Your task to perform on an android device: turn notification dots on Image 0: 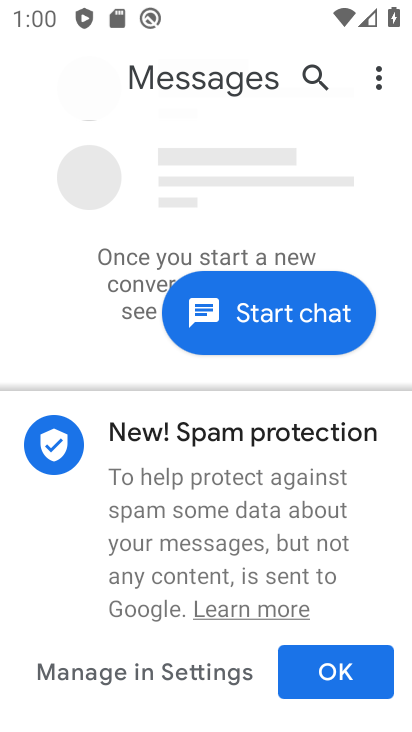
Step 0: press home button
Your task to perform on an android device: turn notification dots on Image 1: 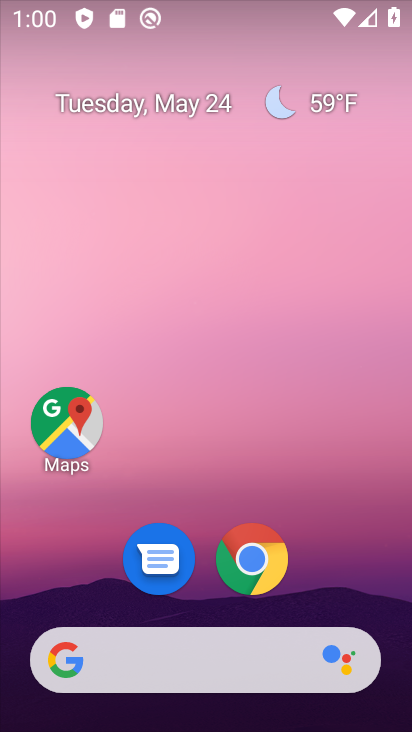
Step 1: drag from (391, 671) to (258, 67)
Your task to perform on an android device: turn notification dots on Image 2: 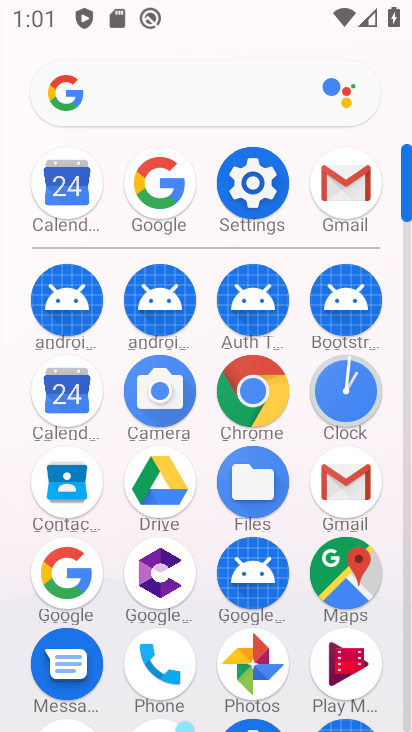
Step 2: click (243, 170)
Your task to perform on an android device: turn notification dots on Image 3: 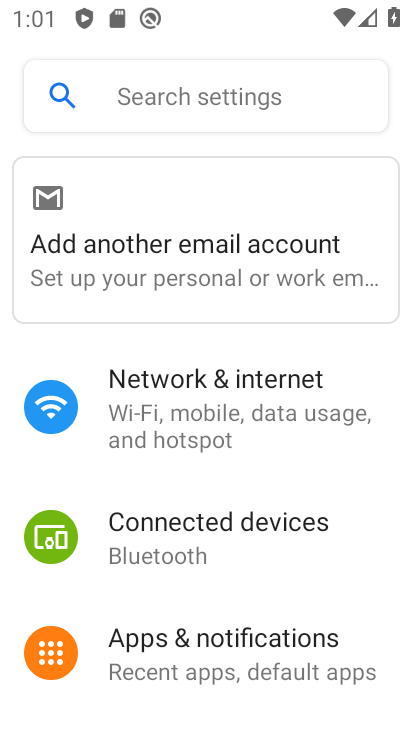
Step 3: drag from (269, 644) to (265, 256)
Your task to perform on an android device: turn notification dots on Image 4: 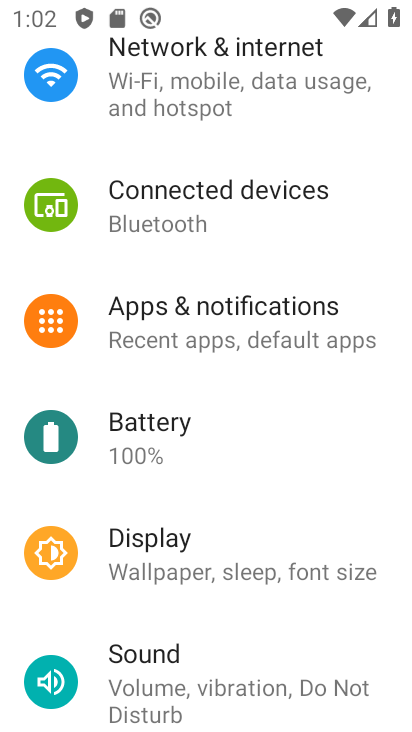
Step 4: click (178, 353)
Your task to perform on an android device: turn notification dots on Image 5: 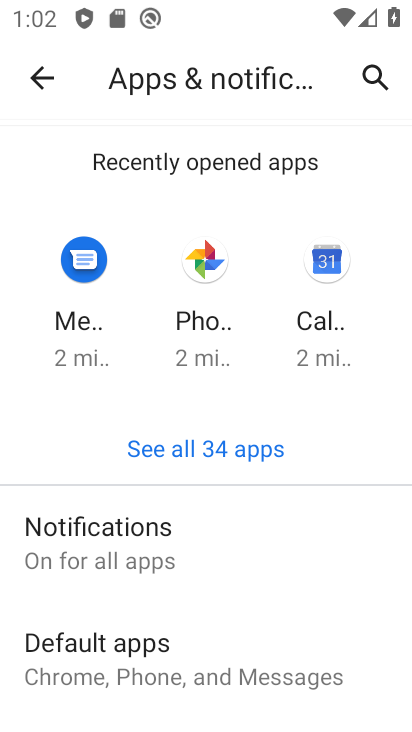
Step 5: click (186, 554)
Your task to perform on an android device: turn notification dots on Image 6: 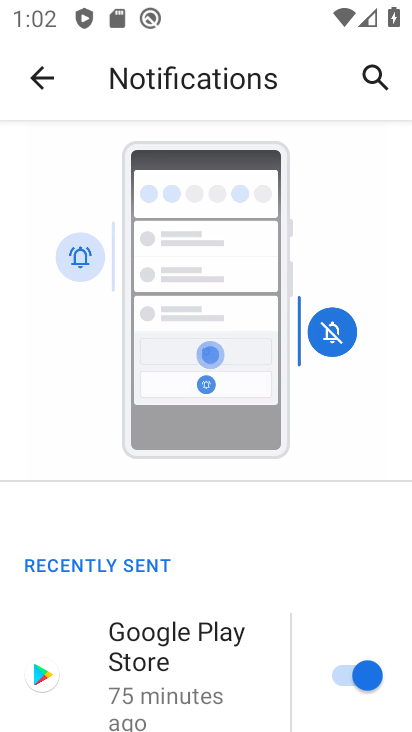
Step 6: drag from (173, 695) to (252, 42)
Your task to perform on an android device: turn notification dots on Image 7: 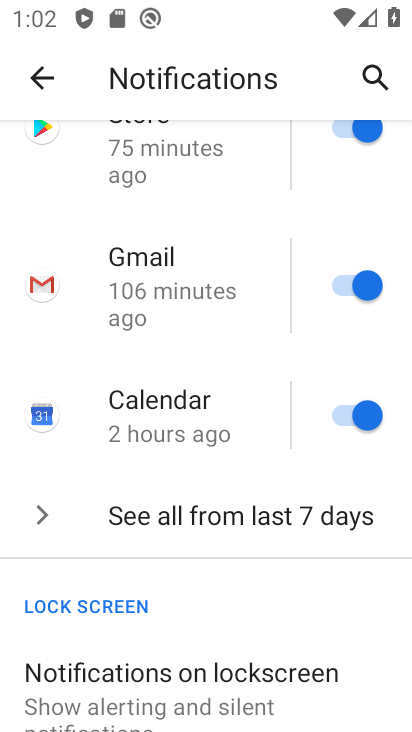
Step 7: drag from (146, 720) to (212, 119)
Your task to perform on an android device: turn notification dots on Image 8: 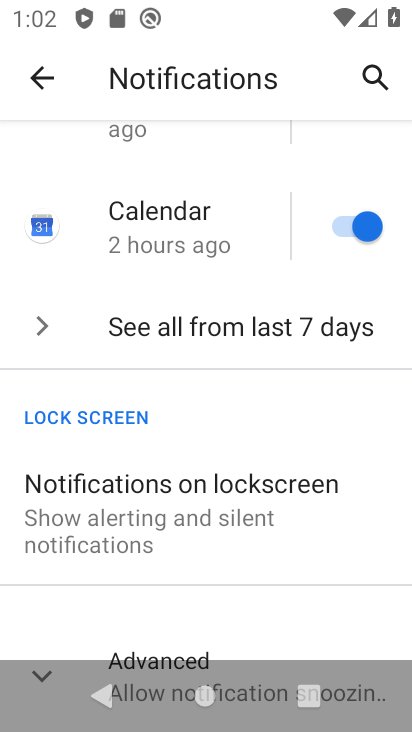
Step 8: click (204, 641)
Your task to perform on an android device: turn notification dots on Image 9: 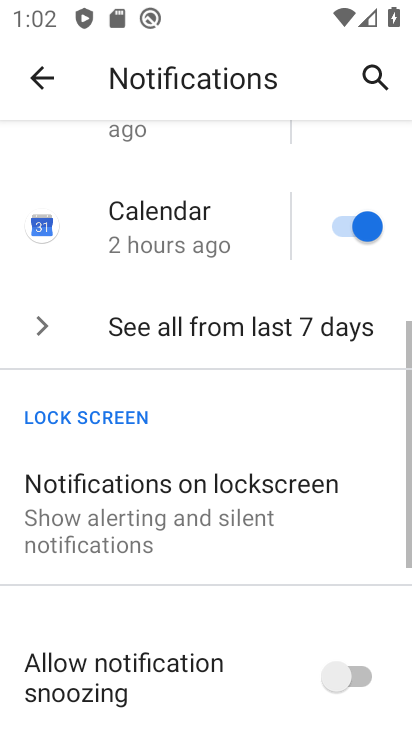
Step 9: task complete